Your task to perform on an android device: Go to network settings Image 0: 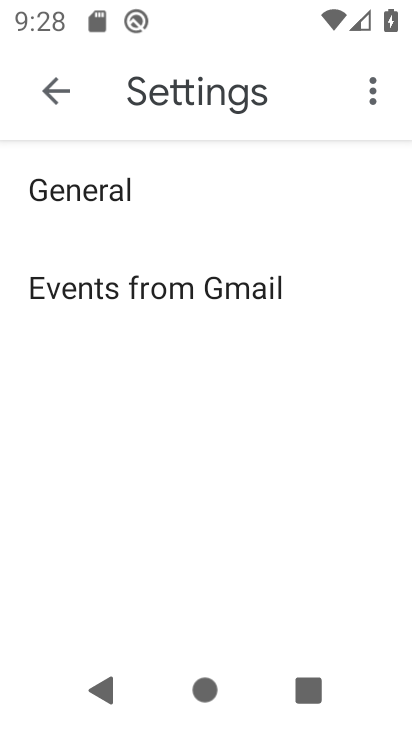
Step 0: press home button
Your task to perform on an android device: Go to network settings Image 1: 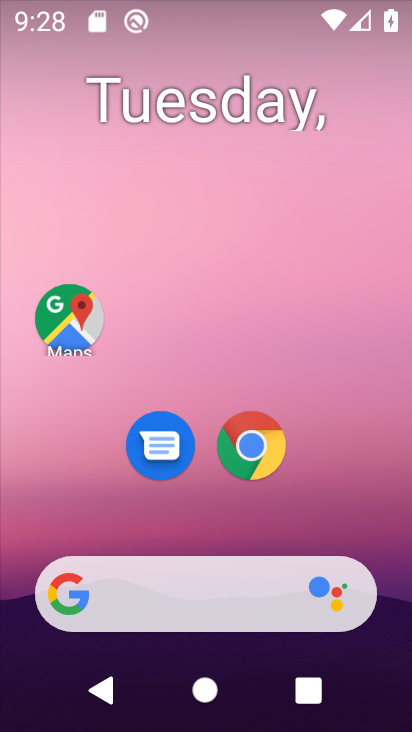
Step 1: drag from (199, 510) to (306, 15)
Your task to perform on an android device: Go to network settings Image 2: 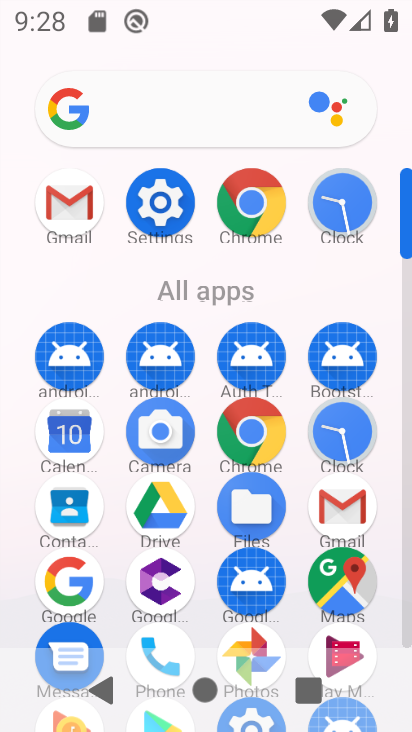
Step 2: click (161, 207)
Your task to perform on an android device: Go to network settings Image 3: 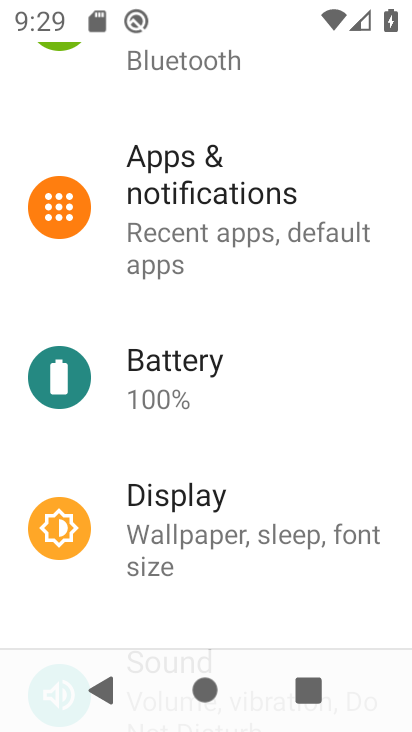
Step 3: drag from (216, 132) to (213, 631)
Your task to perform on an android device: Go to network settings Image 4: 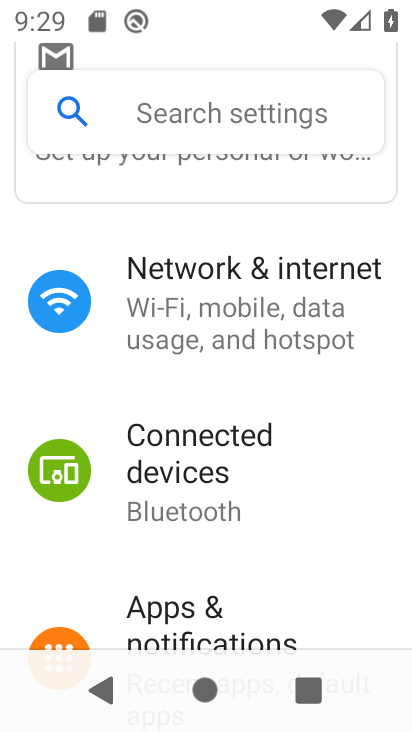
Step 4: click (229, 297)
Your task to perform on an android device: Go to network settings Image 5: 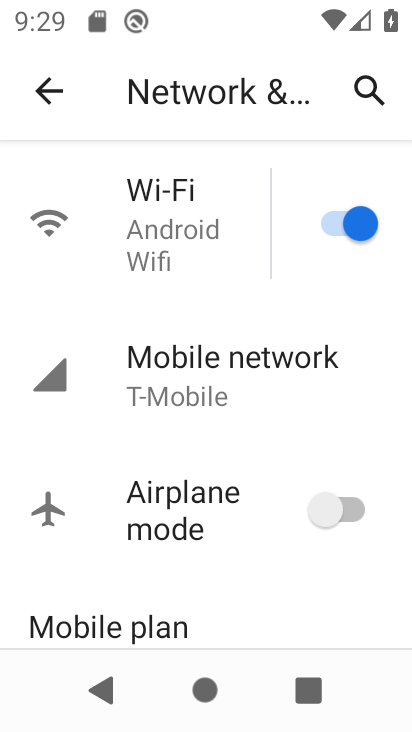
Step 5: click (219, 363)
Your task to perform on an android device: Go to network settings Image 6: 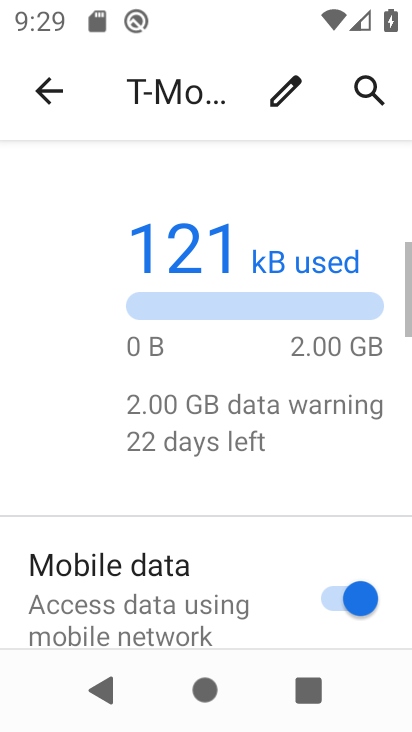
Step 6: task complete